Your task to perform on an android device: View the shopping cart on bestbuy.com. Image 0: 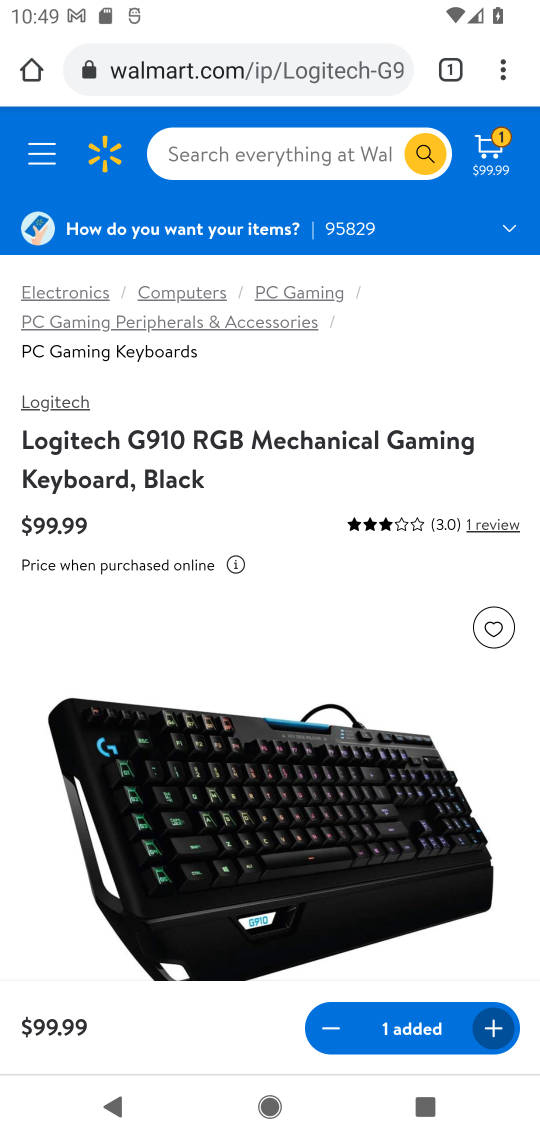
Step 0: click (34, 70)
Your task to perform on an android device: View the shopping cart on bestbuy.com. Image 1: 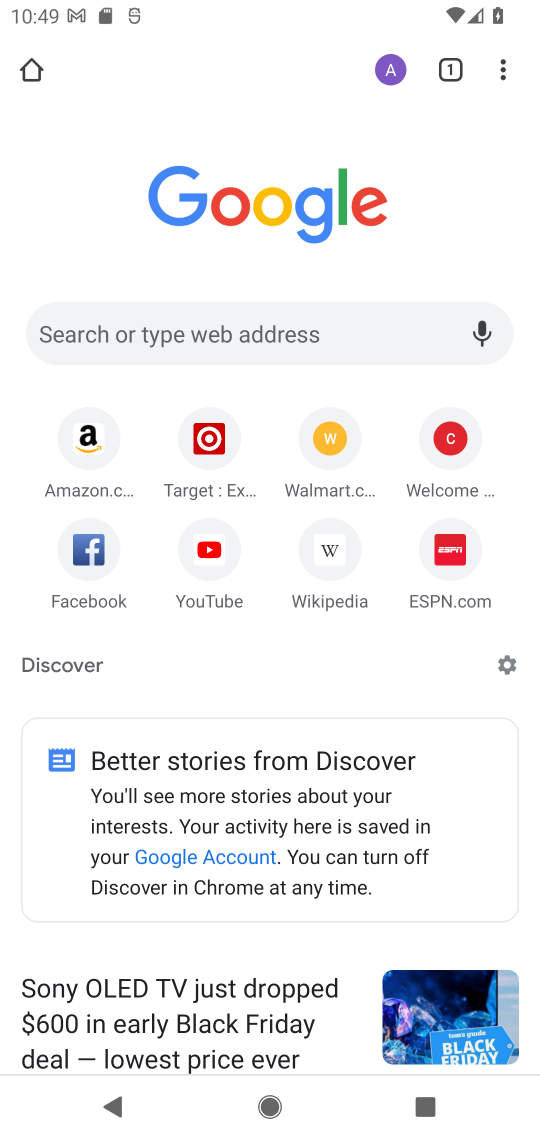
Step 1: click (341, 304)
Your task to perform on an android device: View the shopping cart on bestbuy.com. Image 2: 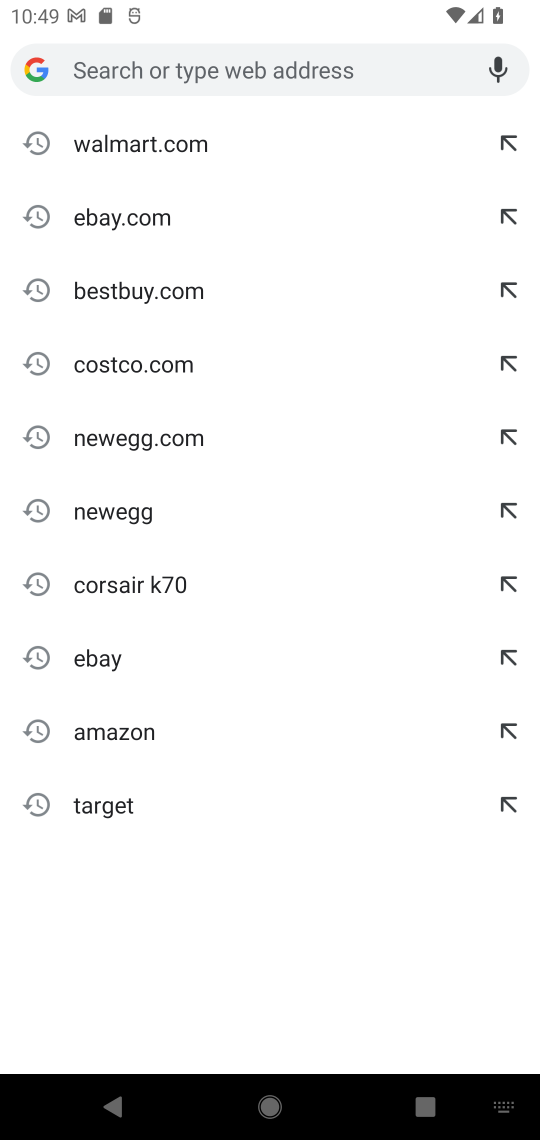
Step 2: click (154, 293)
Your task to perform on an android device: View the shopping cart on bestbuy.com. Image 3: 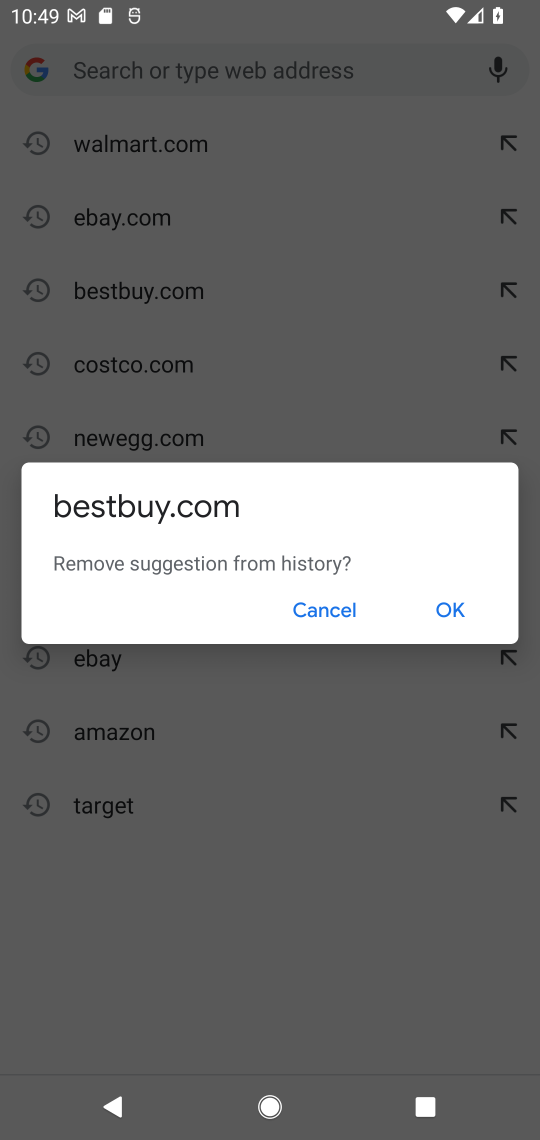
Step 3: click (454, 602)
Your task to perform on an android device: View the shopping cart on bestbuy.com. Image 4: 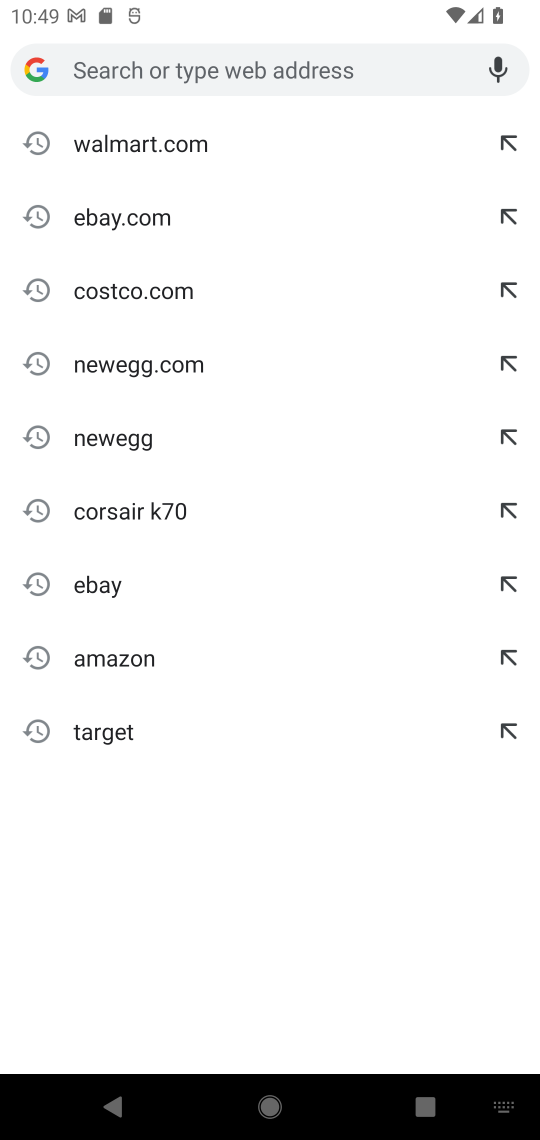
Step 4: type " bestbuy.com"
Your task to perform on an android device: View the shopping cart on bestbuy.com. Image 5: 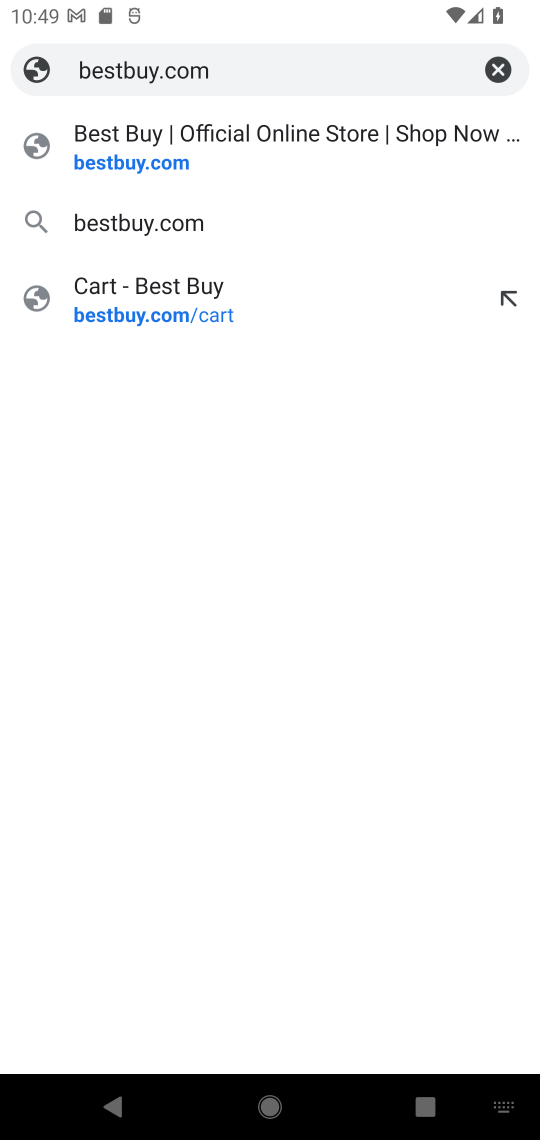
Step 5: click (177, 218)
Your task to perform on an android device: View the shopping cart on bestbuy.com. Image 6: 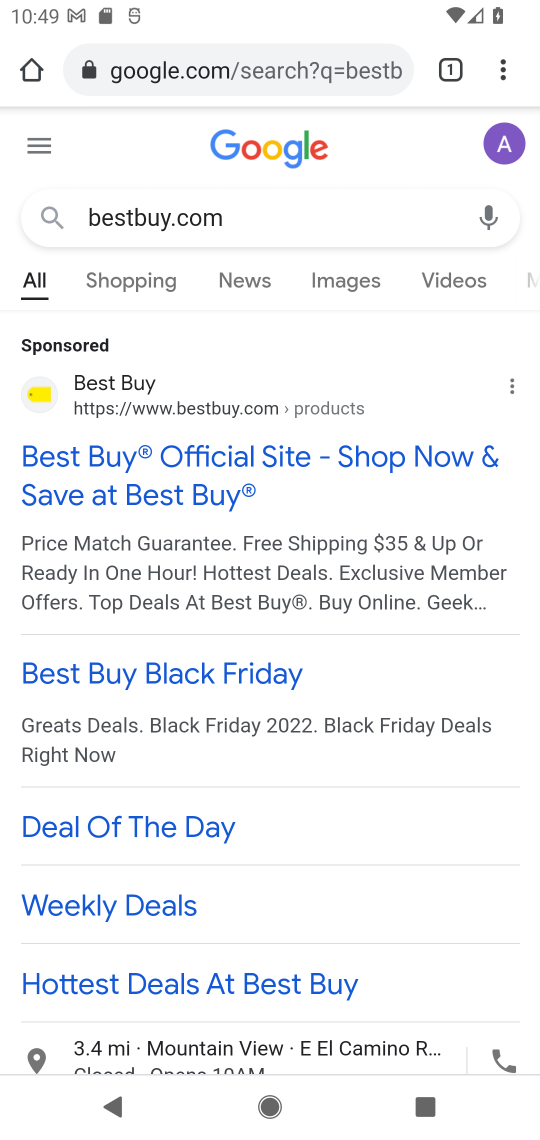
Step 6: click (182, 400)
Your task to perform on an android device: View the shopping cart on bestbuy.com. Image 7: 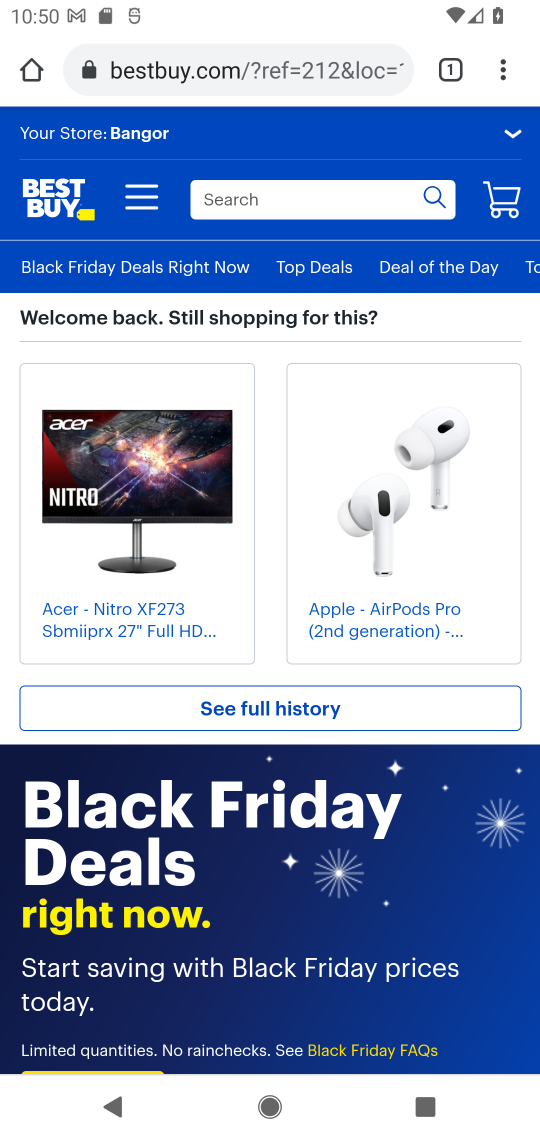
Step 7: task complete